Your task to perform on an android device: What's the weather going to be tomorrow? Image 0: 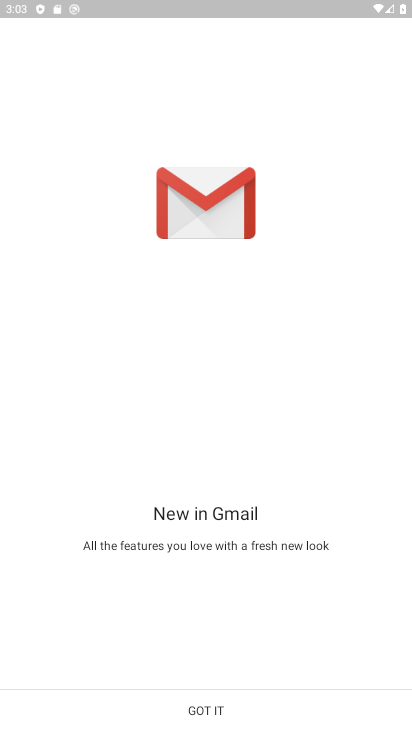
Step 0: press home button
Your task to perform on an android device: What's the weather going to be tomorrow? Image 1: 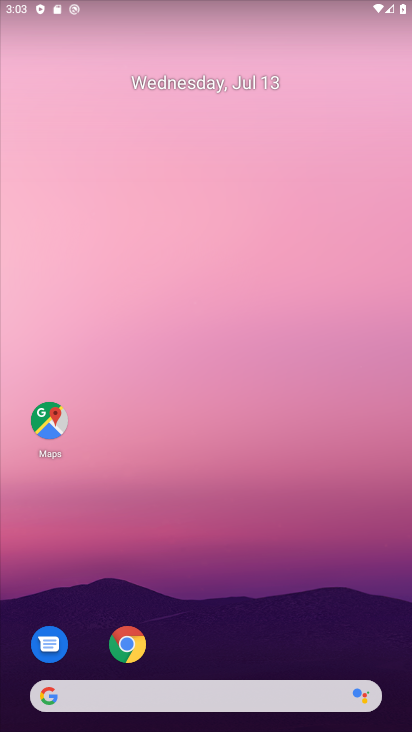
Step 1: drag from (257, 634) to (195, 118)
Your task to perform on an android device: What's the weather going to be tomorrow? Image 2: 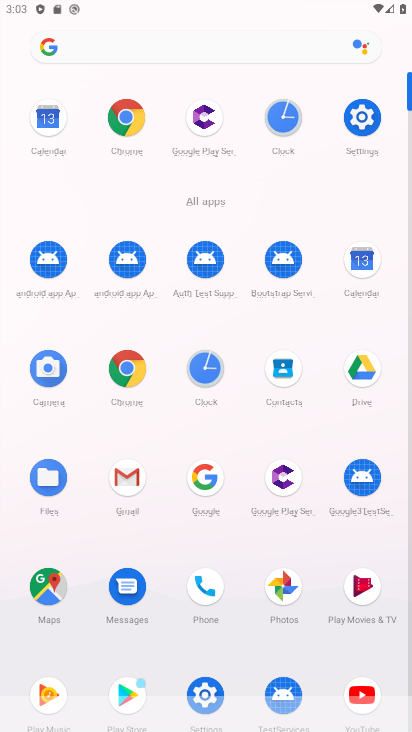
Step 2: click (130, 122)
Your task to perform on an android device: What's the weather going to be tomorrow? Image 3: 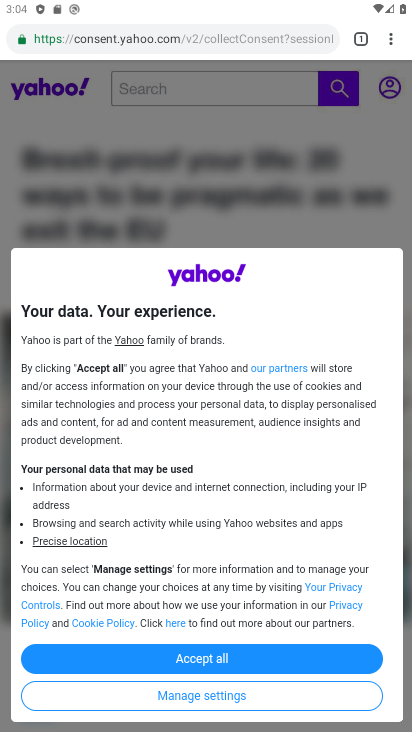
Step 3: click (228, 32)
Your task to perform on an android device: What's the weather going to be tomorrow? Image 4: 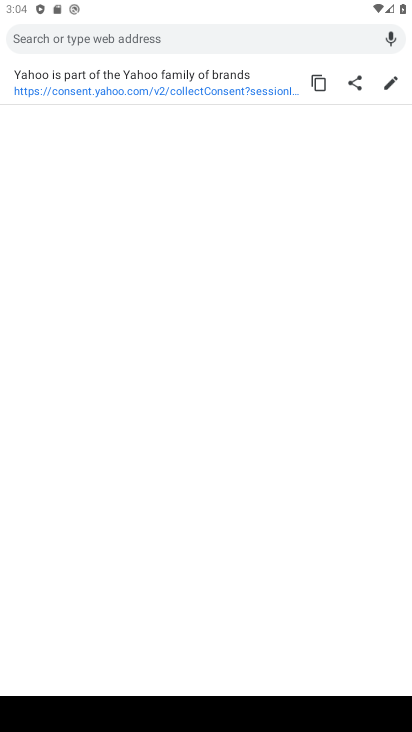
Step 4: type "What's the weather going to be tomorrow?"
Your task to perform on an android device: What's the weather going to be tomorrow? Image 5: 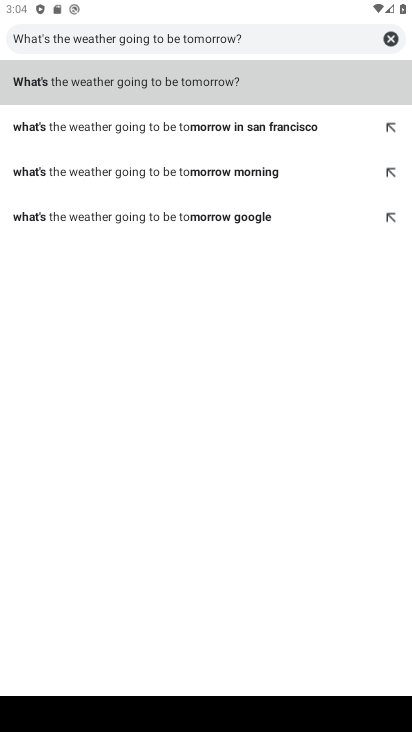
Step 5: click (220, 84)
Your task to perform on an android device: What's the weather going to be tomorrow? Image 6: 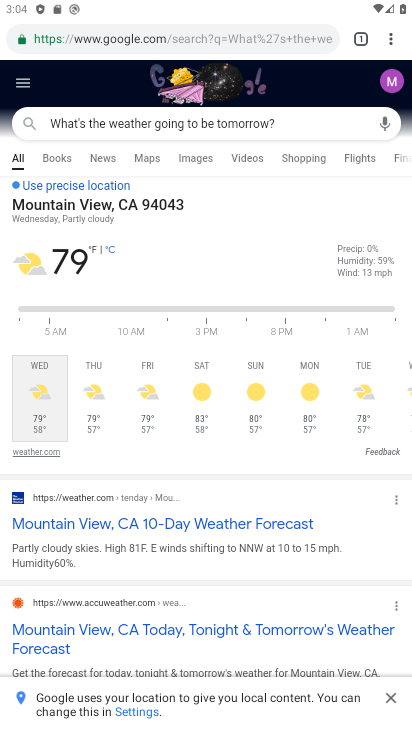
Step 6: task complete